Your task to perform on an android device: Open Google Image 0: 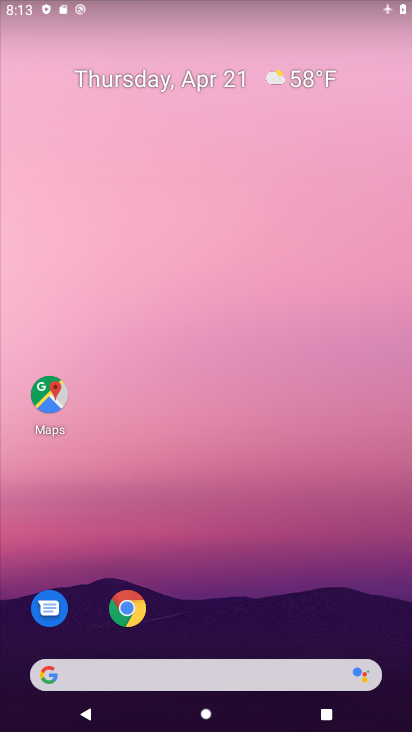
Step 0: click (51, 679)
Your task to perform on an android device: Open Google Image 1: 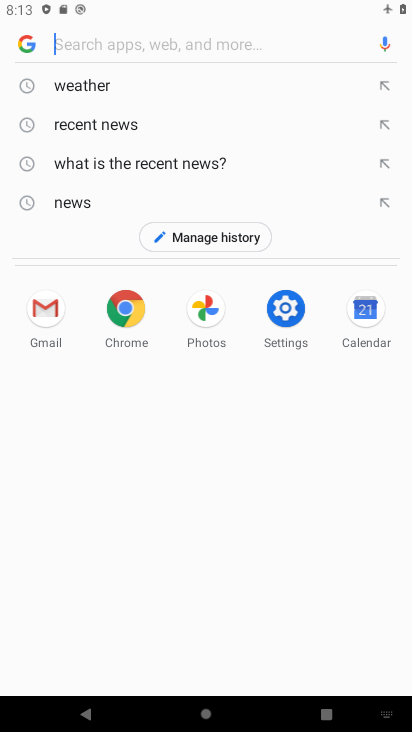
Step 1: click (28, 41)
Your task to perform on an android device: Open Google Image 2: 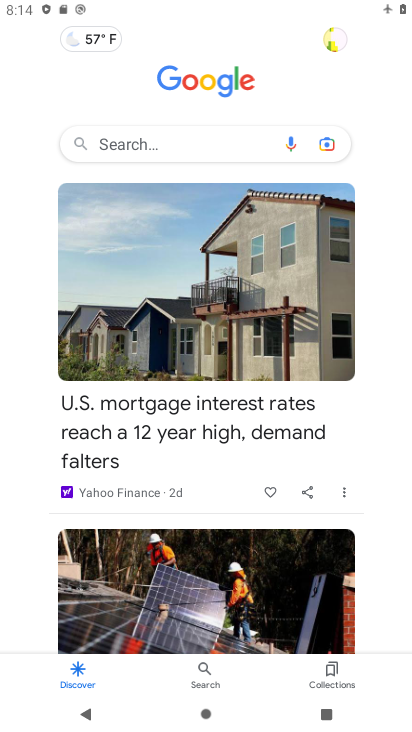
Step 2: click (135, 255)
Your task to perform on an android device: Open Google Image 3: 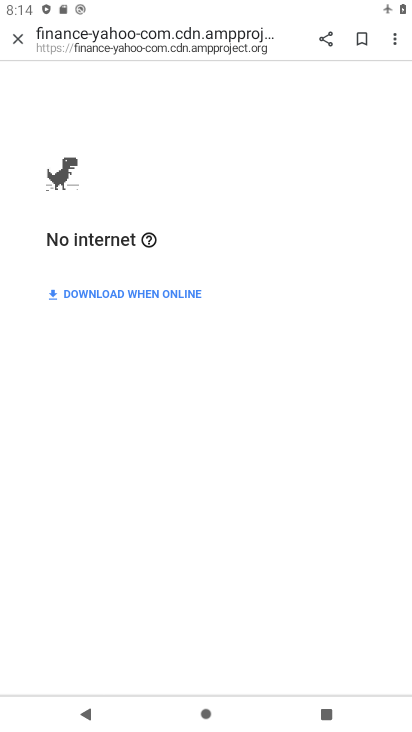
Step 3: task complete